Your task to perform on an android device: Go to eBay Image 0: 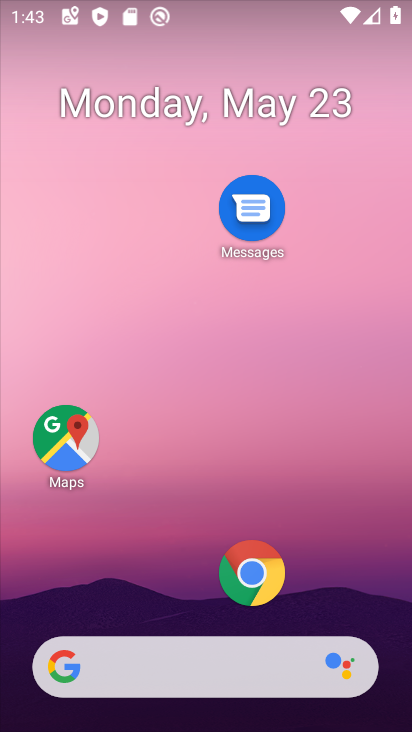
Step 0: drag from (145, 431) to (160, 101)
Your task to perform on an android device: Go to eBay Image 1: 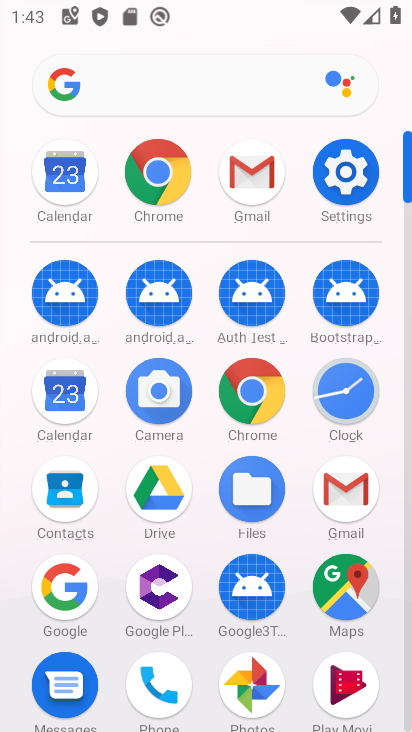
Step 1: click (163, 183)
Your task to perform on an android device: Go to eBay Image 2: 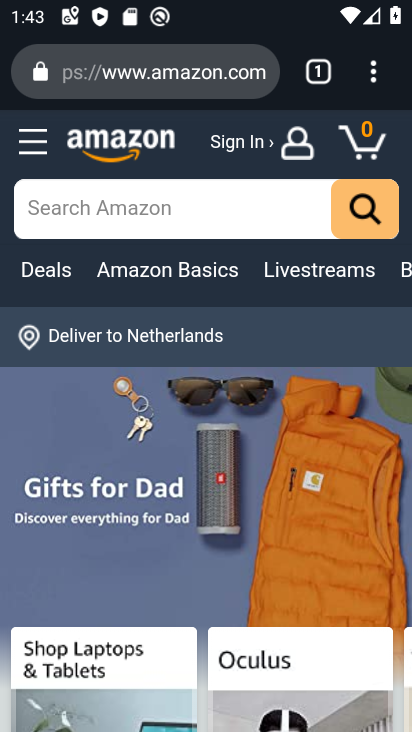
Step 2: click (266, 77)
Your task to perform on an android device: Go to eBay Image 3: 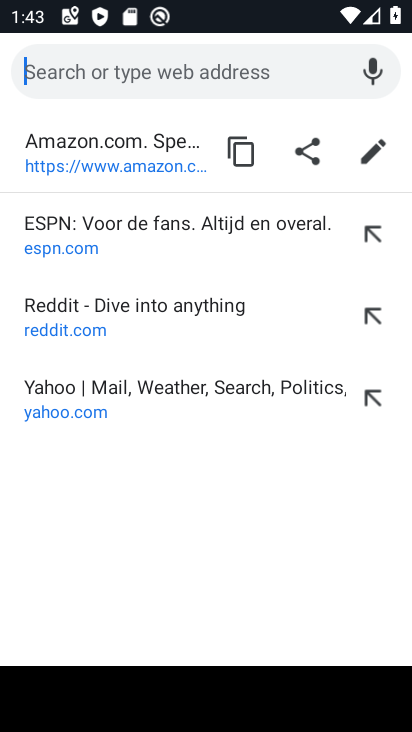
Step 3: type "ebay"
Your task to perform on an android device: Go to eBay Image 4: 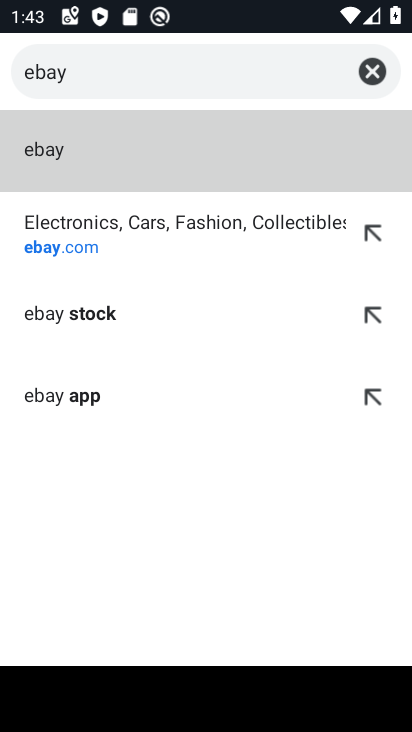
Step 4: click (181, 160)
Your task to perform on an android device: Go to eBay Image 5: 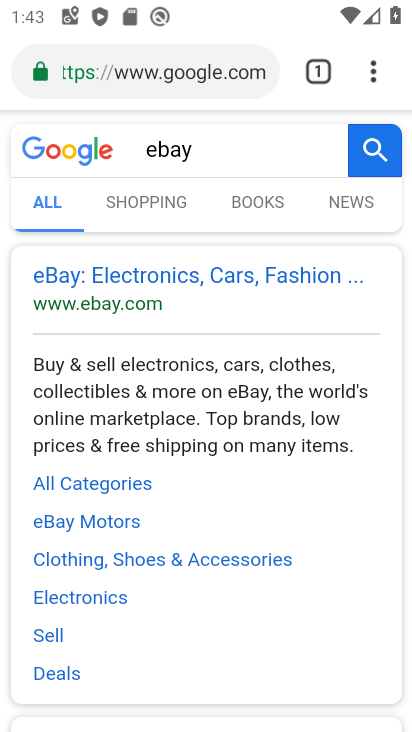
Step 5: click (185, 281)
Your task to perform on an android device: Go to eBay Image 6: 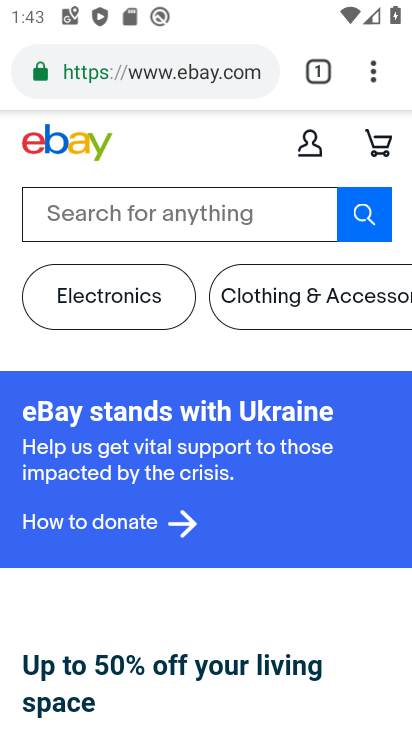
Step 6: task complete